Your task to perform on an android device: Open the calendar and show me this week's events? Image 0: 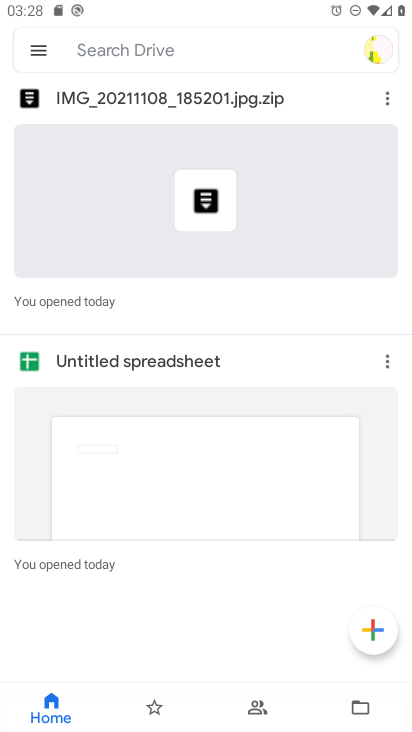
Step 0: press home button
Your task to perform on an android device: Open the calendar and show me this week's events? Image 1: 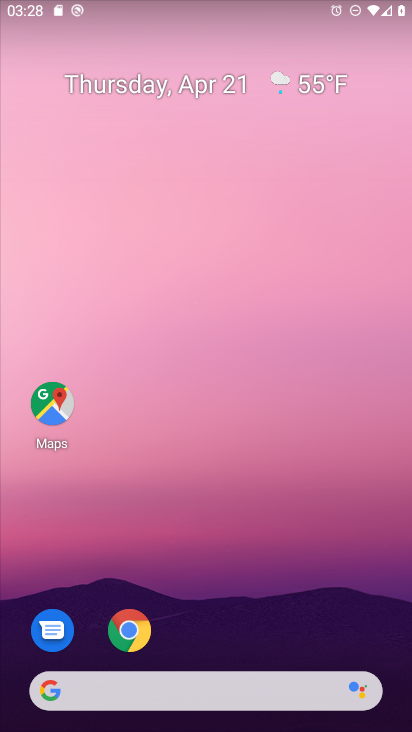
Step 1: drag from (225, 599) to (283, 155)
Your task to perform on an android device: Open the calendar and show me this week's events? Image 2: 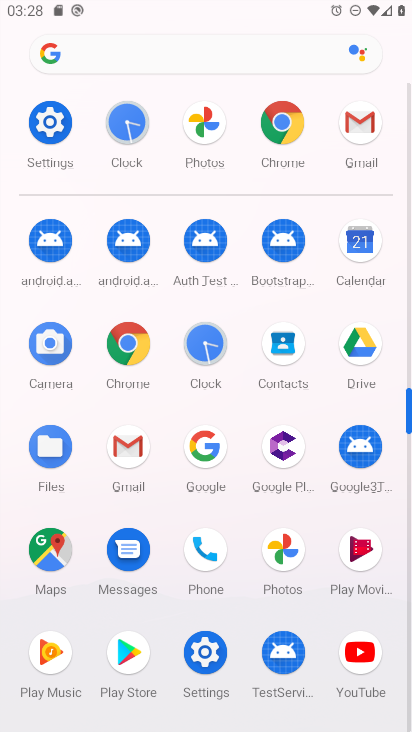
Step 2: click (371, 274)
Your task to perform on an android device: Open the calendar and show me this week's events? Image 3: 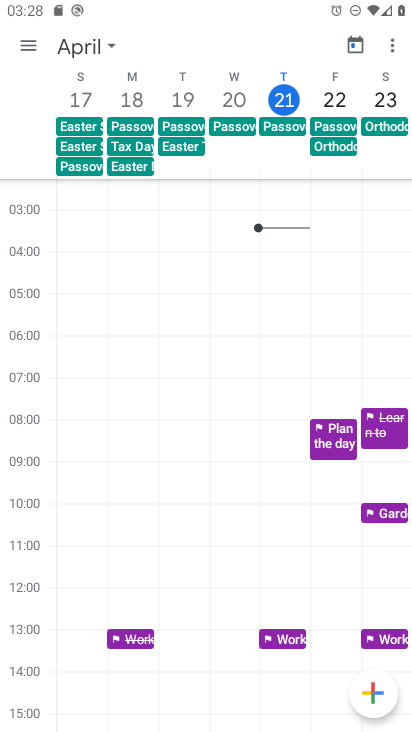
Step 3: task complete